Your task to perform on an android device: Open Android settings Image 0: 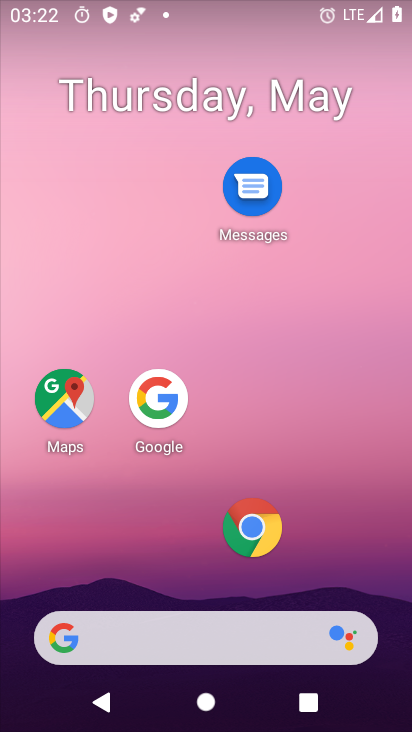
Step 0: drag from (187, 598) to (188, 178)
Your task to perform on an android device: Open Android settings Image 1: 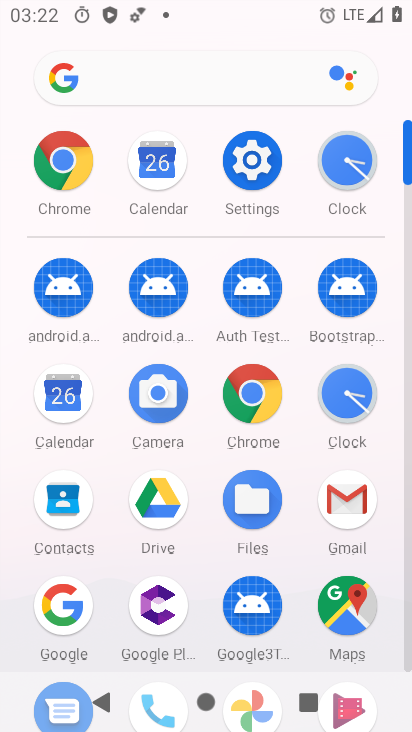
Step 1: click (250, 164)
Your task to perform on an android device: Open Android settings Image 2: 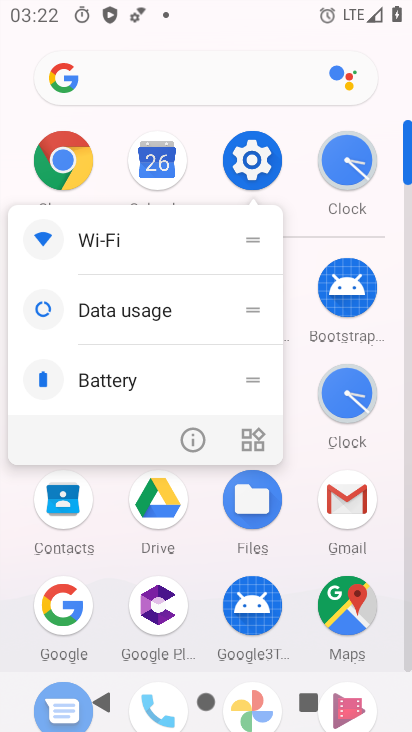
Step 2: click (217, 442)
Your task to perform on an android device: Open Android settings Image 3: 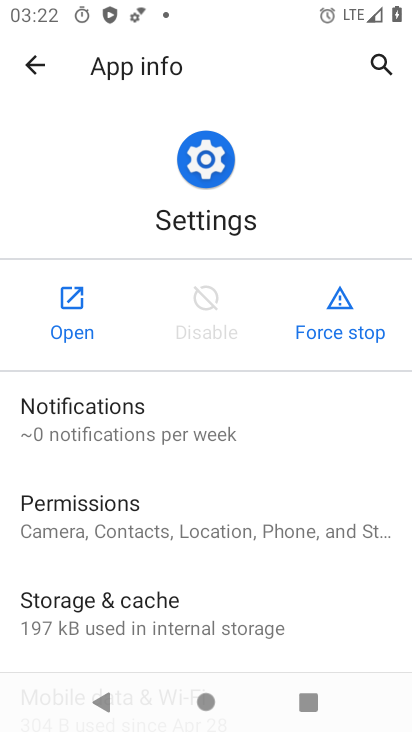
Step 3: click (68, 302)
Your task to perform on an android device: Open Android settings Image 4: 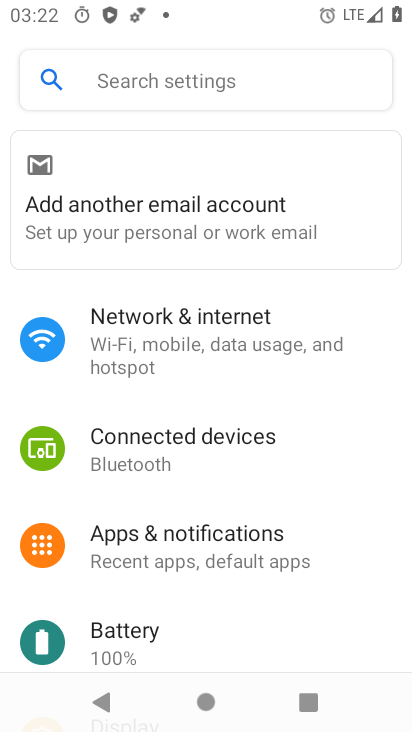
Step 4: drag from (204, 590) to (314, 18)
Your task to perform on an android device: Open Android settings Image 5: 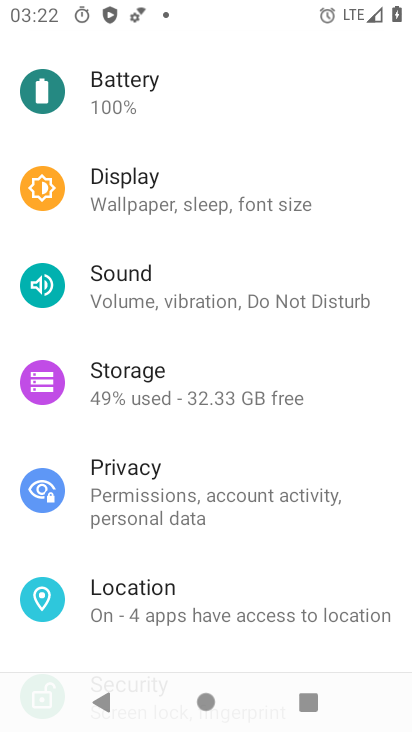
Step 5: drag from (168, 610) to (205, 16)
Your task to perform on an android device: Open Android settings Image 6: 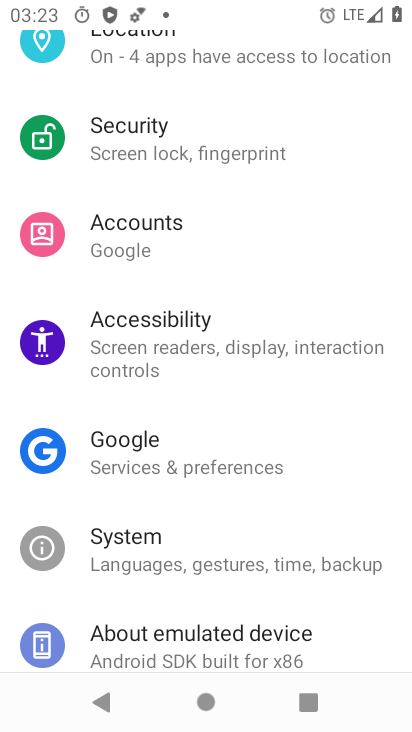
Step 6: drag from (186, 618) to (275, 46)
Your task to perform on an android device: Open Android settings Image 7: 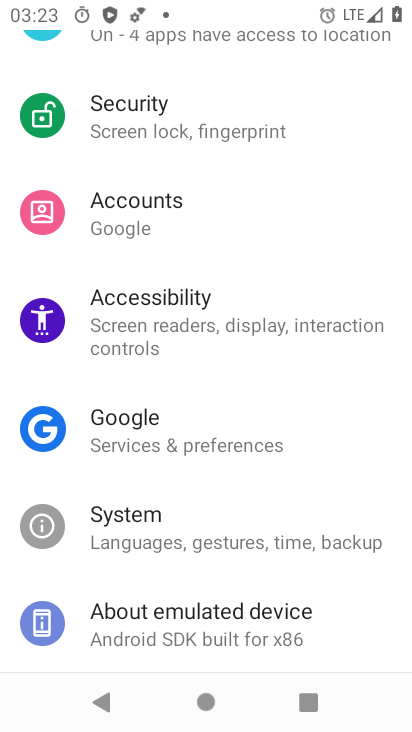
Step 7: click (162, 628)
Your task to perform on an android device: Open Android settings Image 8: 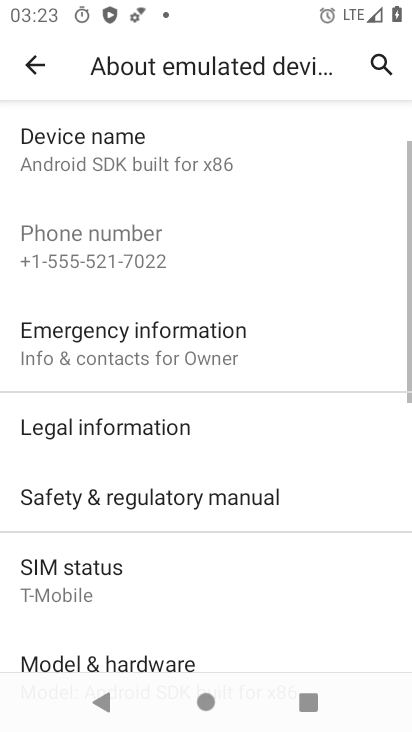
Step 8: click (342, 7)
Your task to perform on an android device: Open Android settings Image 9: 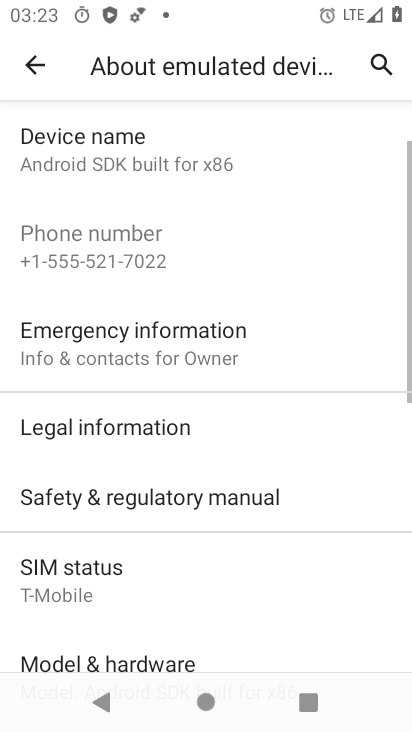
Step 9: drag from (193, 523) to (289, 100)
Your task to perform on an android device: Open Android settings Image 10: 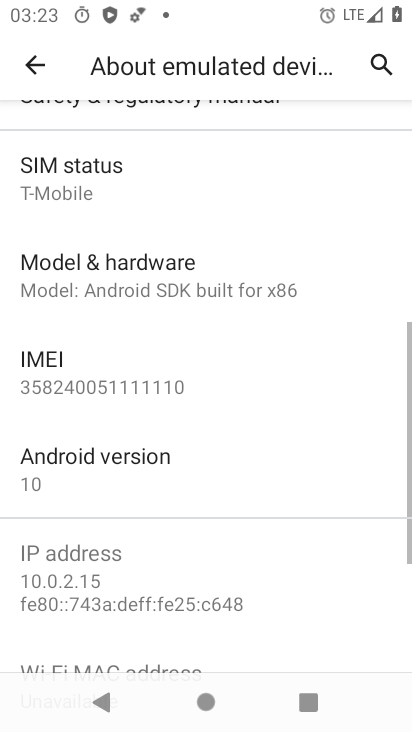
Step 10: click (137, 452)
Your task to perform on an android device: Open Android settings Image 11: 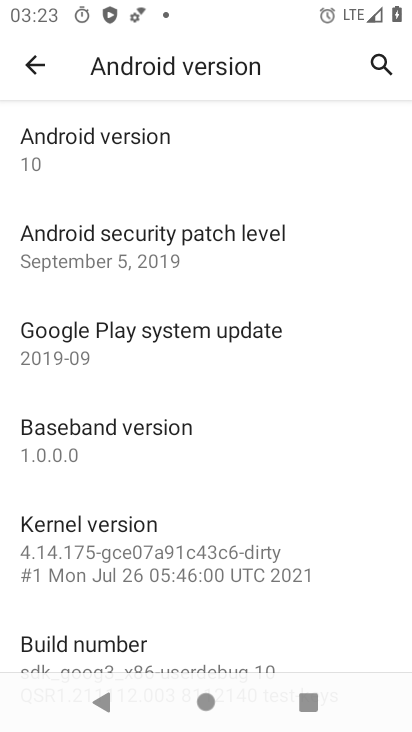
Step 11: click (145, 156)
Your task to perform on an android device: Open Android settings Image 12: 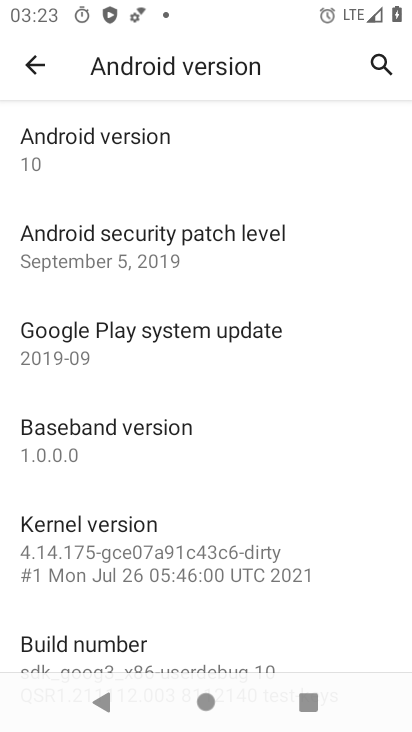
Step 12: task complete